Your task to perform on an android device: Go to Amazon Image 0: 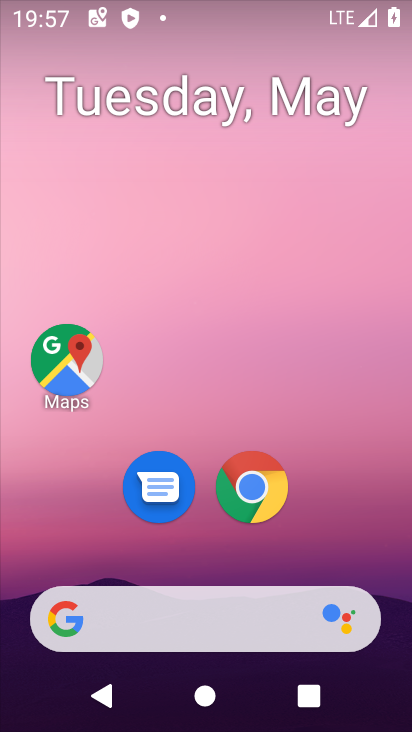
Step 0: click (254, 481)
Your task to perform on an android device: Go to Amazon Image 1: 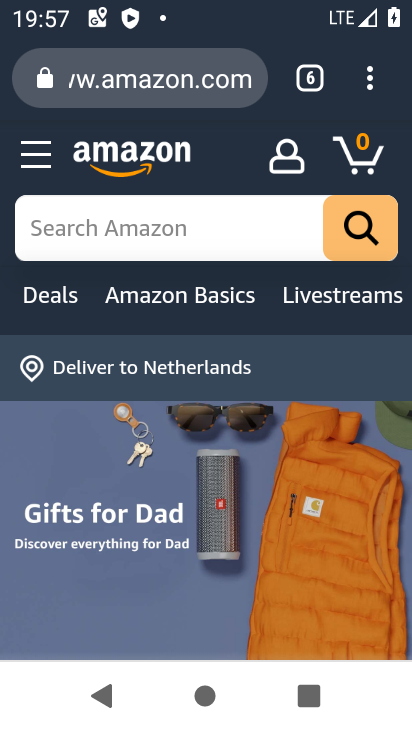
Step 1: task complete